Your task to perform on an android device: manage bookmarks in the chrome app Image 0: 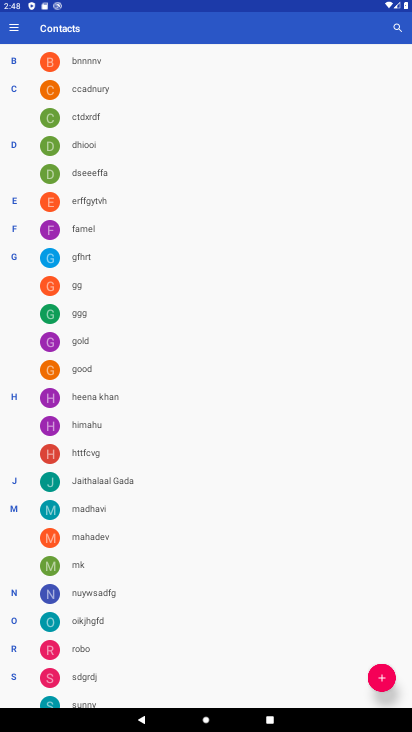
Step 0: press home button
Your task to perform on an android device: manage bookmarks in the chrome app Image 1: 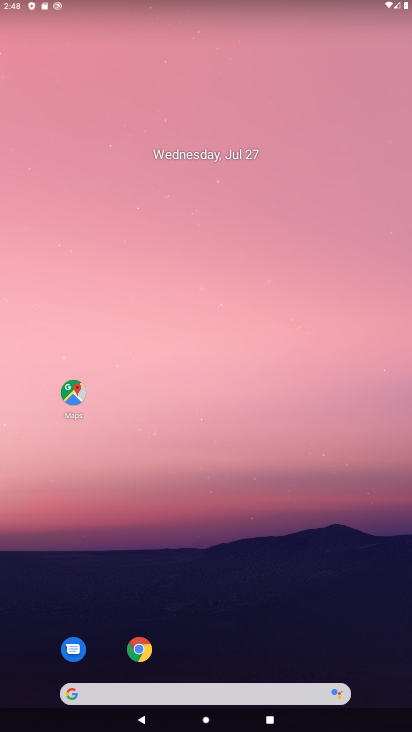
Step 1: drag from (281, 632) to (286, 127)
Your task to perform on an android device: manage bookmarks in the chrome app Image 2: 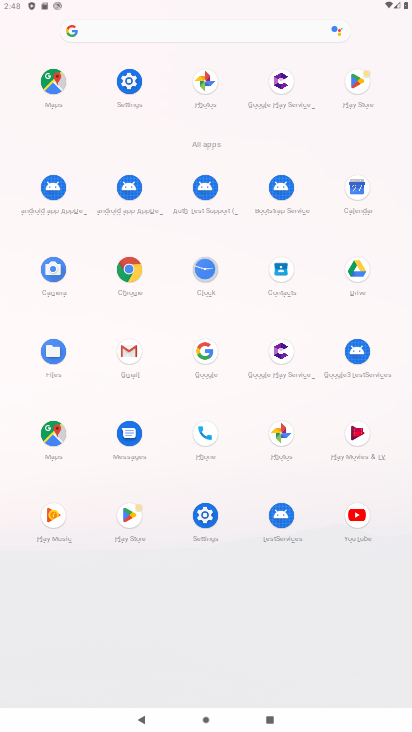
Step 2: click (135, 268)
Your task to perform on an android device: manage bookmarks in the chrome app Image 3: 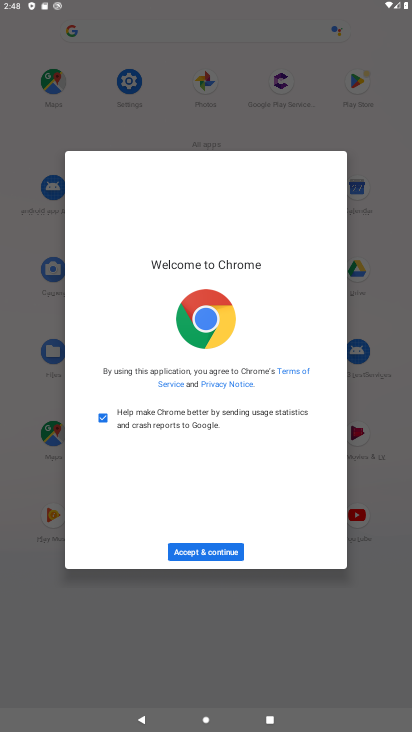
Step 3: click (225, 551)
Your task to perform on an android device: manage bookmarks in the chrome app Image 4: 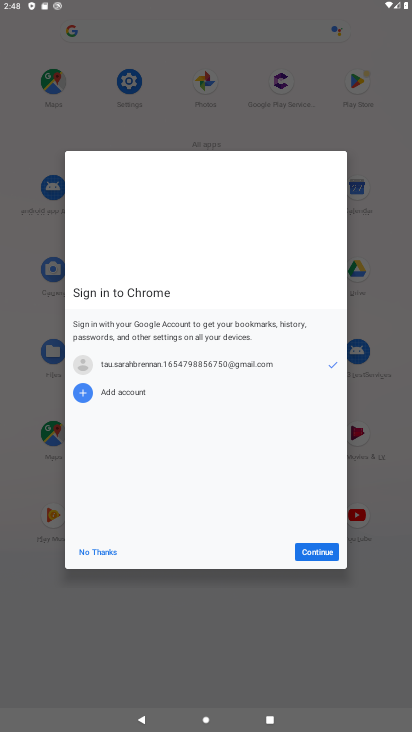
Step 4: click (311, 551)
Your task to perform on an android device: manage bookmarks in the chrome app Image 5: 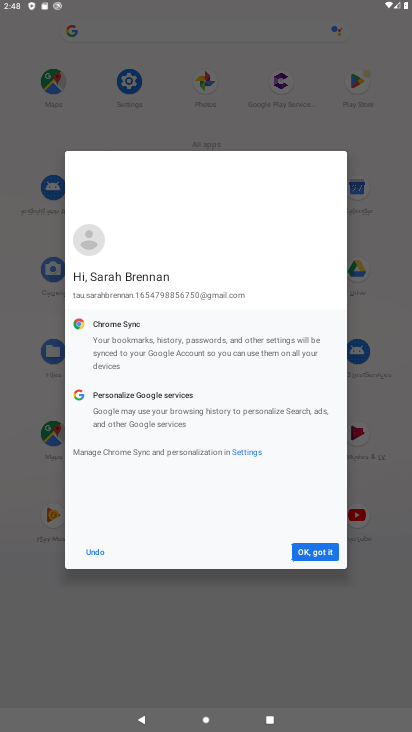
Step 5: click (311, 551)
Your task to perform on an android device: manage bookmarks in the chrome app Image 6: 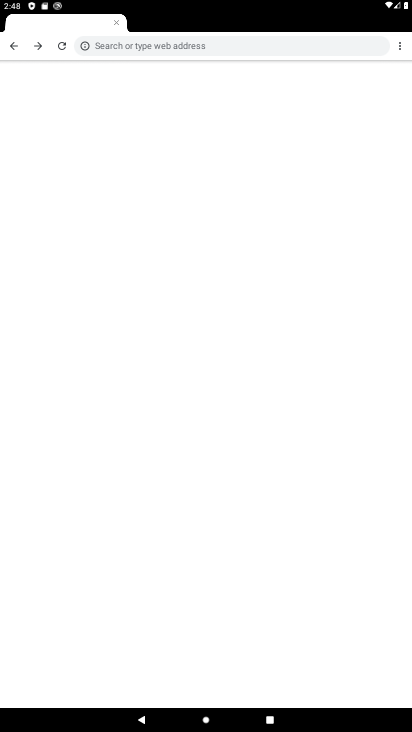
Step 6: click (402, 45)
Your task to perform on an android device: manage bookmarks in the chrome app Image 7: 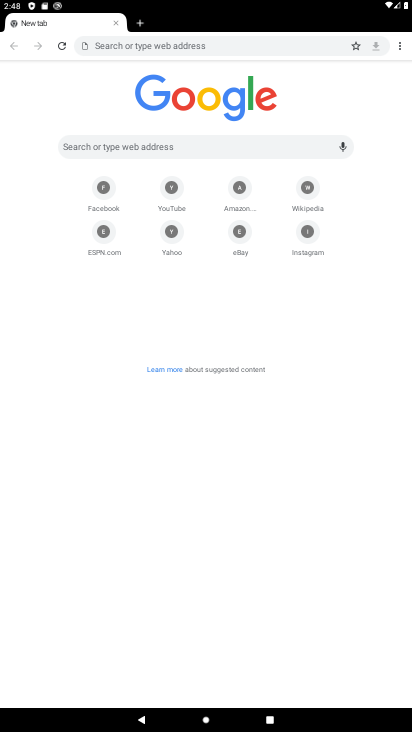
Step 7: drag from (402, 45) to (311, 204)
Your task to perform on an android device: manage bookmarks in the chrome app Image 8: 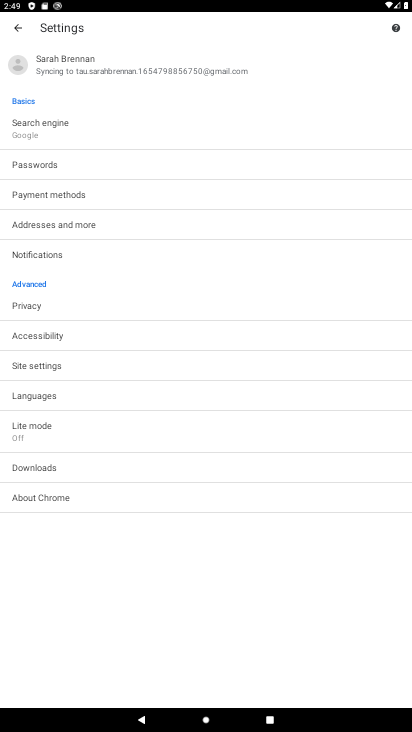
Step 8: click (16, 25)
Your task to perform on an android device: manage bookmarks in the chrome app Image 9: 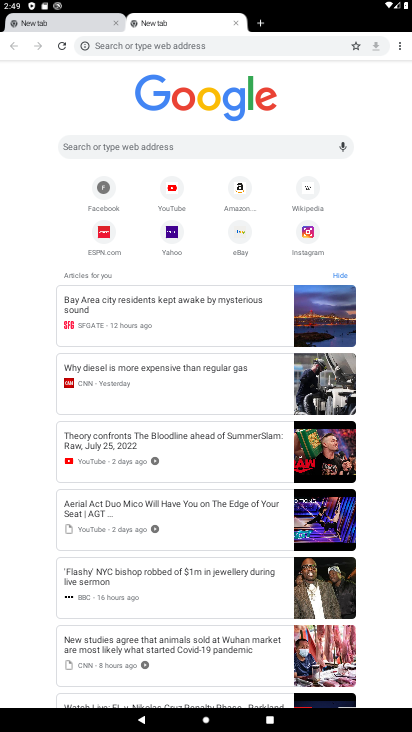
Step 9: drag from (397, 39) to (325, 90)
Your task to perform on an android device: manage bookmarks in the chrome app Image 10: 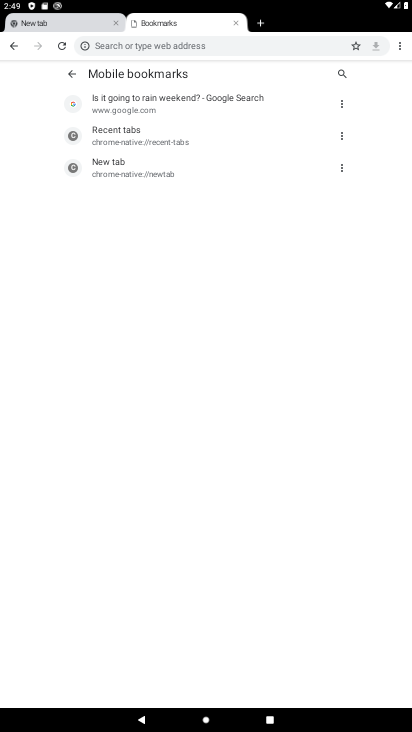
Step 10: click (190, 102)
Your task to perform on an android device: manage bookmarks in the chrome app Image 11: 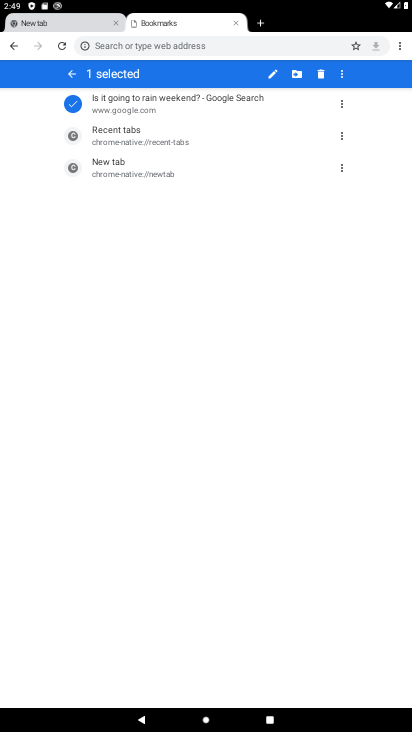
Step 11: click (297, 75)
Your task to perform on an android device: manage bookmarks in the chrome app Image 12: 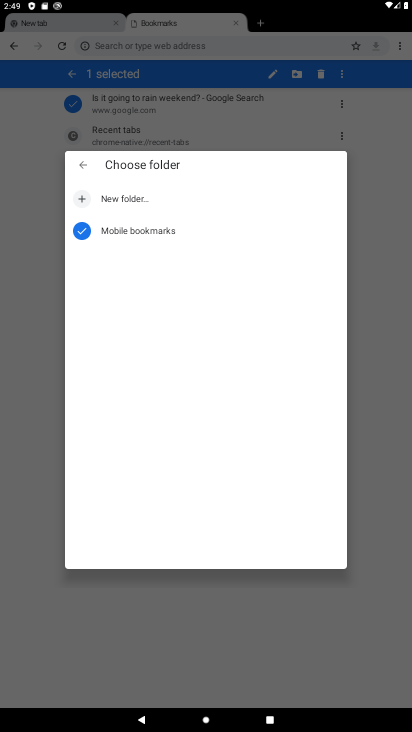
Step 12: click (156, 226)
Your task to perform on an android device: manage bookmarks in the chrome app Image 13: 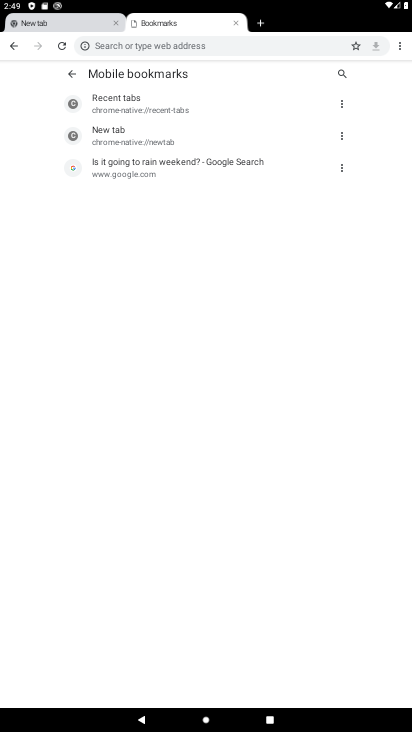
Step 13: task complete